Your task to perform on an android device: add a label to a message in the gmail app Image 0: 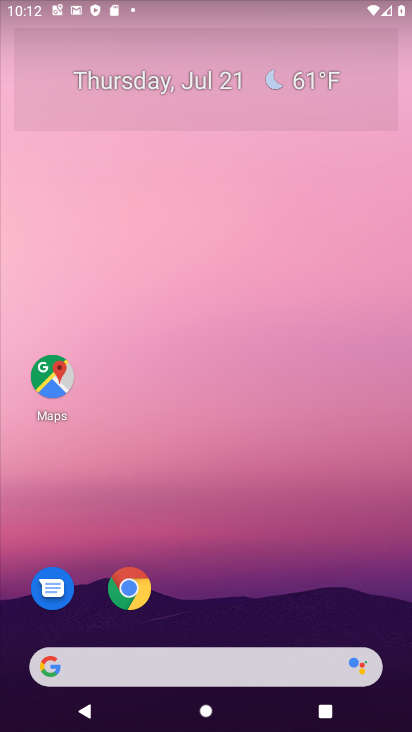
Step 0: drag from (224, 612) to (272, 11)
Your task to perform on an android device: add a label to a message in the gmail app Image 1: 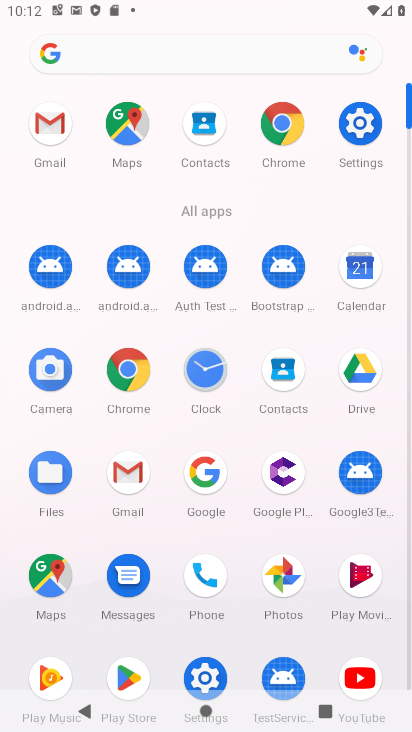
Step 1: click (57, 128)
Your task to perform on an android device: add a label to a message in the gmail app Image 2: 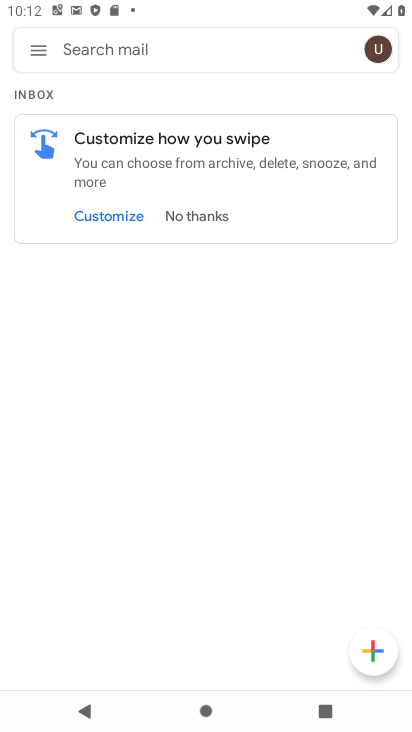
Step 2: click (34, 49)
Your task to perform on an android device: add a label to a message in the gmail app Image 3: 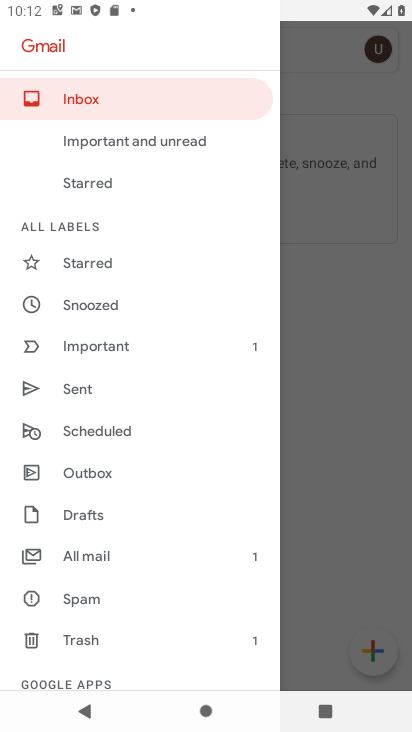
Step 3: click (139, 553)
Your task to perform on an android device: add a label to a message in the gmail app Image 4: 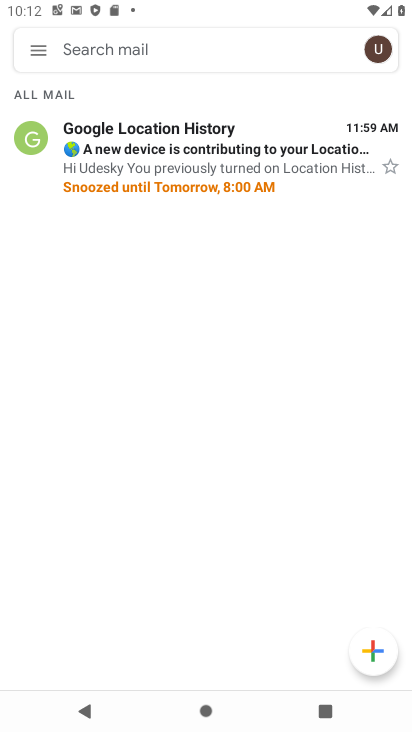
Step 4: click (234, 142)
Your task to perform on an android device: add a label to a message in the gmail app Image 5: 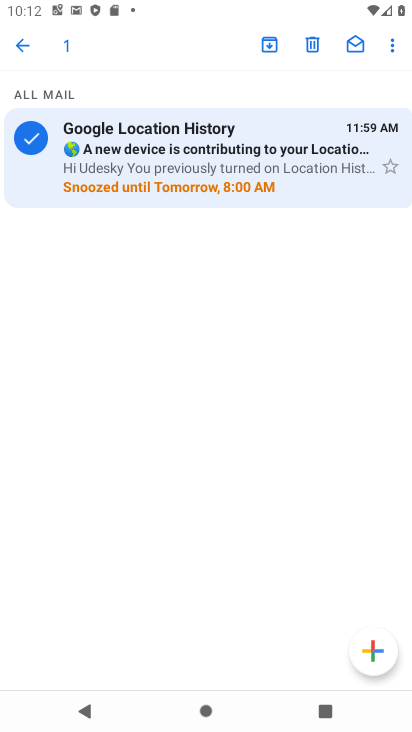
Step 5: click (384, 46)
Your task to perform on an android device: add a label to a message in the gmail app Image 6: 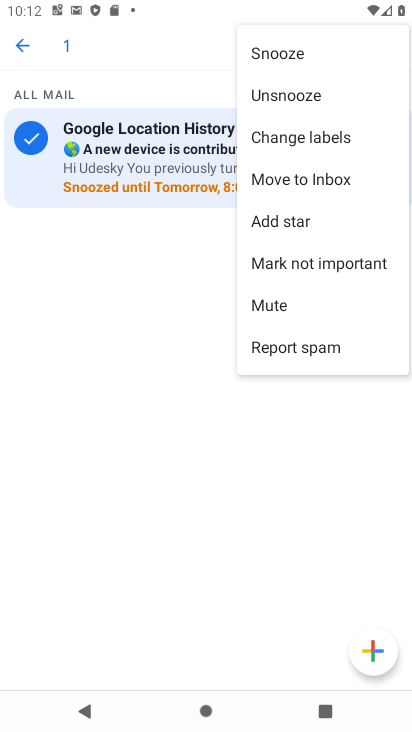
Step 6: click (300, 133)
Your task to perform on an android device: add a label to a message in the gmail app Image 7: 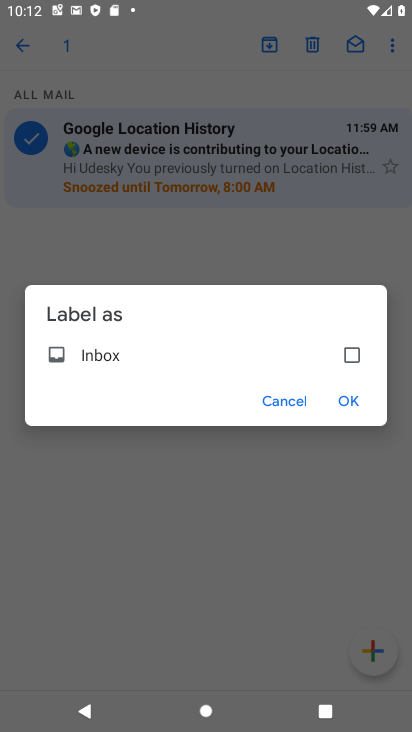
Step 7: click (335, 345)
Your task to perform on an android device: add a label to a message in the gmail app Image 8: 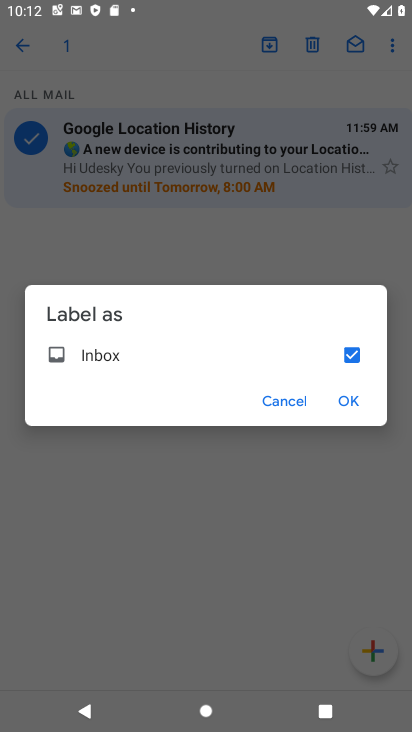
Step 8: click (342, 384)
Your task to perform on an android device: add a label to a message in the gmail app Image 9: 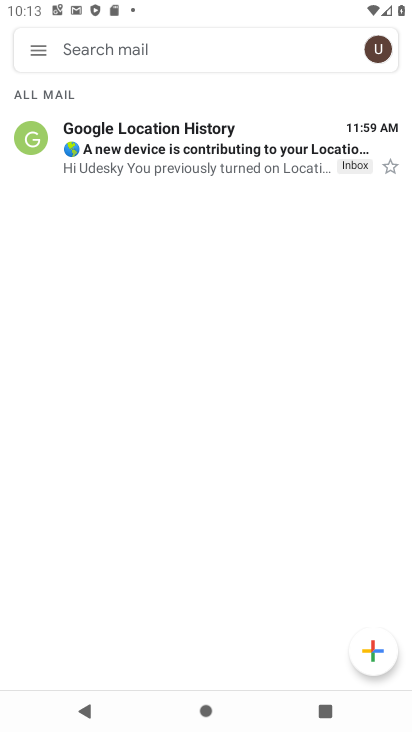
Step 9: task complete